Your task to perform on an android device: Open Chrome and go to settings Image 0: 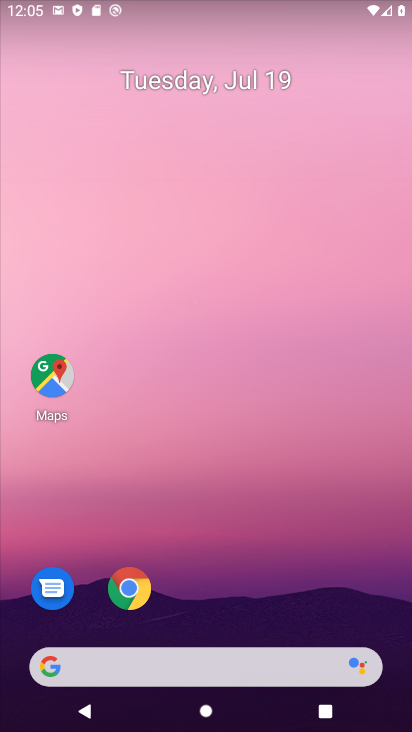
Step 0: drag from (375, 635) to (200, 79)
Your task to perform on an android device: Open Chrome and go to settings Image 1: 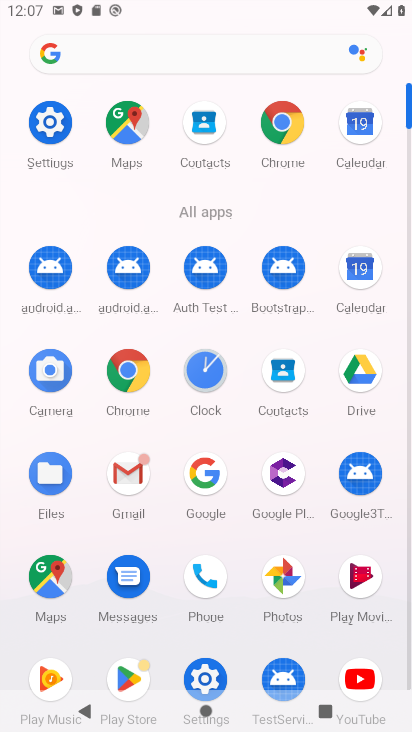
Step 1: click (120, 378)
Your task to perform on an android device: Open Chrome and go to settings Image 2: 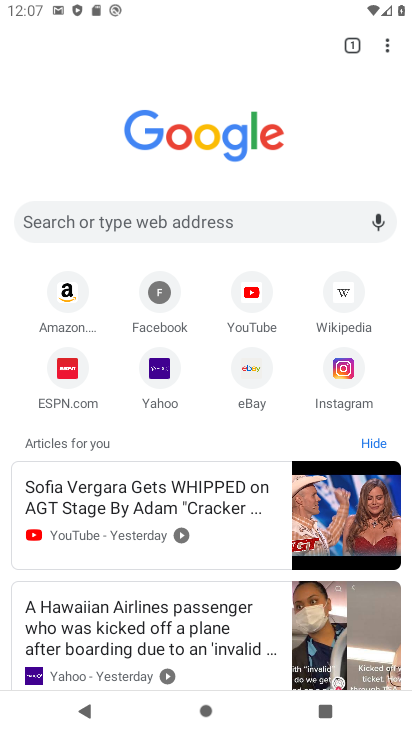
Step 2: click (389, 40)
Your task to perform on an android device: Open Chrome and go to settings Image 3: 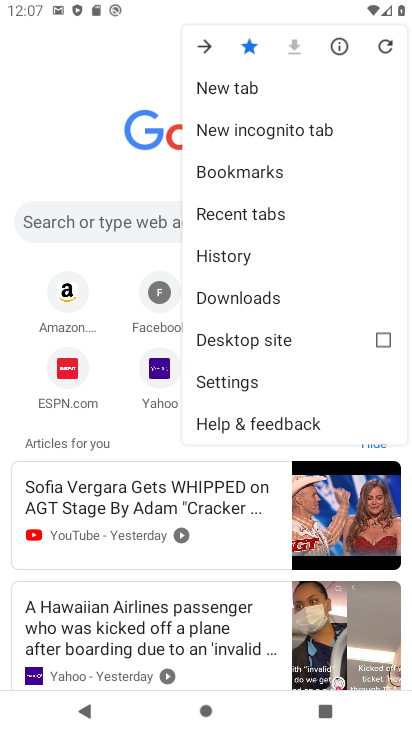
Step 3: click (250, 384)
Your task to perform on an android device: Open Chrome and go to settings Image 4: 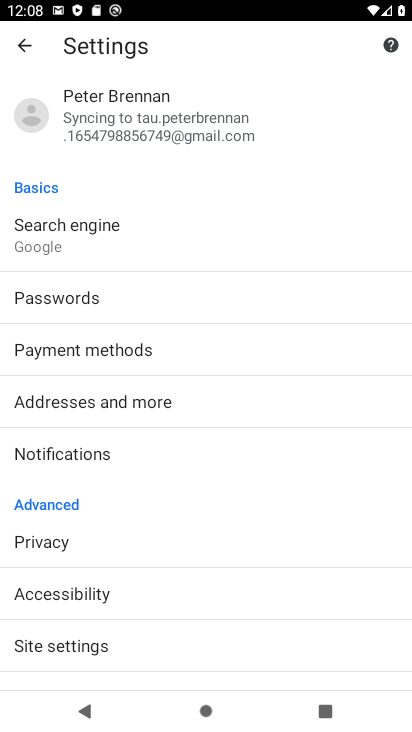
Step 4: task complete